Your task to perform on an android device: turn vacation reply on in the gmail app Image 0: 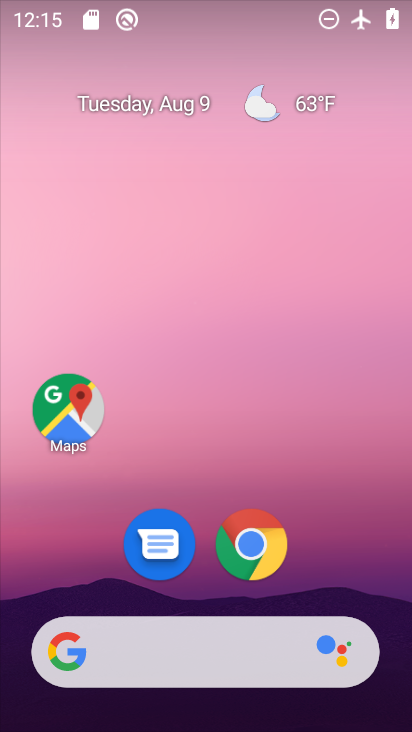
Step 0: drag from (215, 661) to (228, 94)
Your task to perform on an android device: turn vacation reply on in the gmail app Image 1: 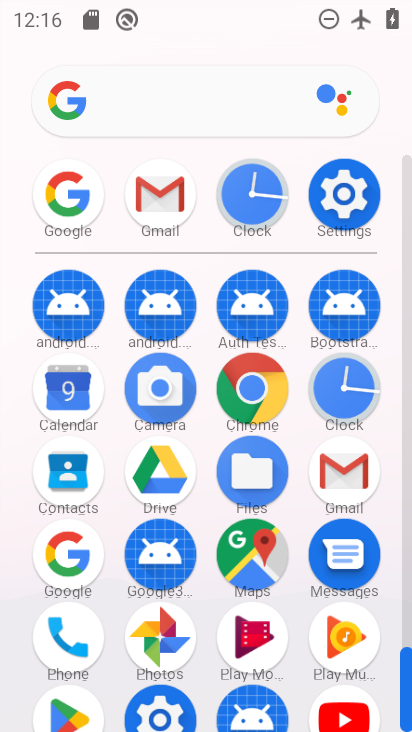
Step 1: click (159, 190)
Your task to perform on an android device: turn vacation reply on in the gmail app Image 2: 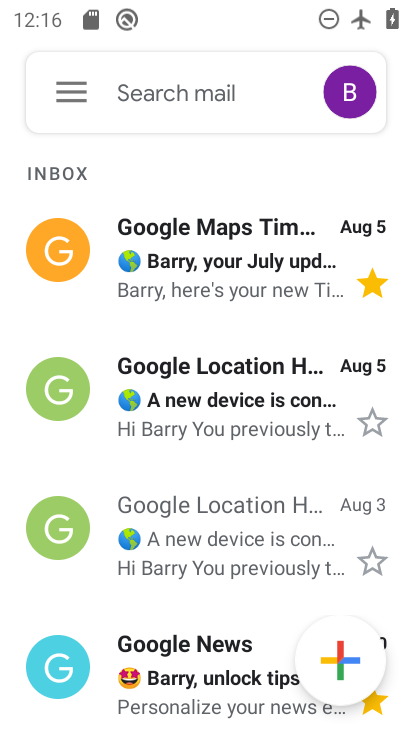
Step 2: click (74, 89)
Your task to perform on an android device: turn vacation reply on in the gmail app Image 3: 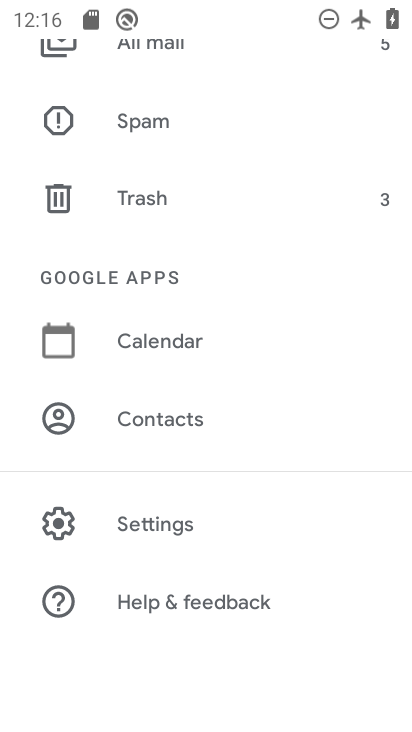
Step 3: click (172, 529)
Your task to perform on an android device: turn vacation reply on in the gmail app Image 4: 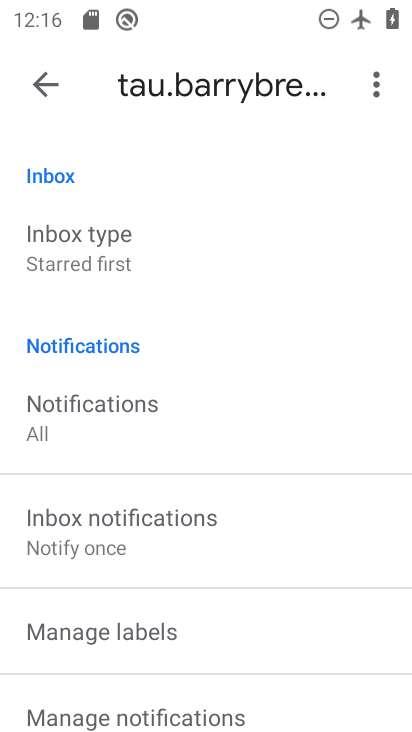
Step 4: drag from (176, 607) to (236, 347)
Your task to perform on an android device: turn vacation reply on in the gmail app Image 5: 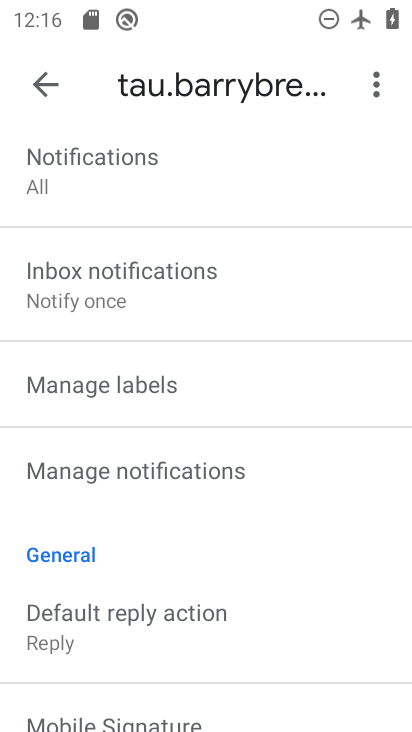
Step 5: drag from (140, 574) to (255, 417)
Your task to perform on an android device: turn vacation reply on in the gmail app Image 6: 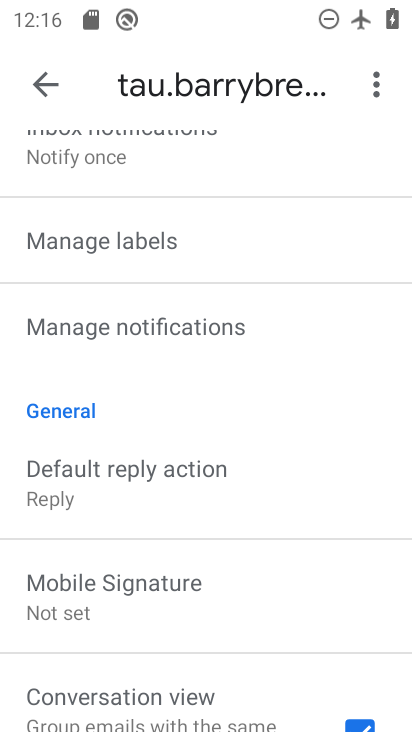
Step 6: drag from (104, 634) to (266, 411)
Your task to perform on an android device: turn vacation reply on in the gmail app Image 7: 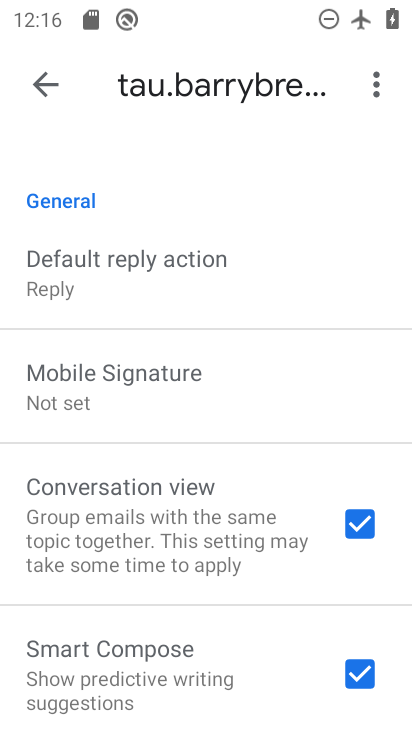
Step 7: drag from (178, 631) to (332, 417)
Your task to perform on an android device: turn vacation reply on in the gmail app Image 8: 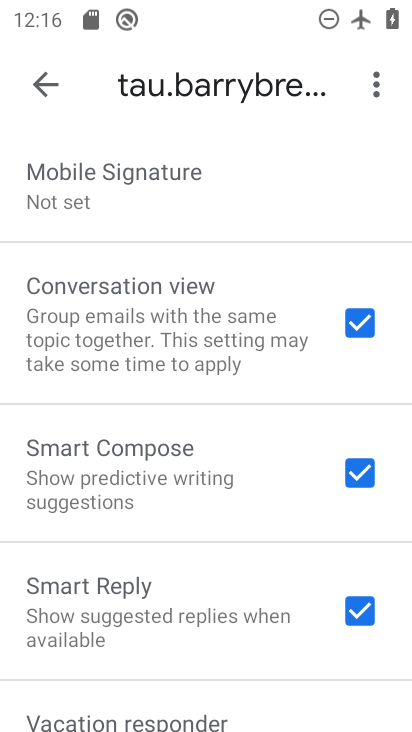
Step 8: drag from (129, 673) to (229, 497)
Your task to perform on an android device: turn vacation reply on in the gmail app Image 9: 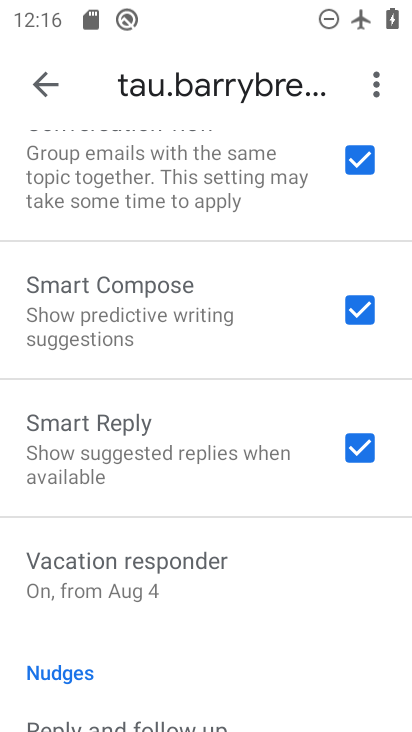
Step 9: click (178, 574)
Your task to perform on an android device: turn vacation reply on in the gmail app Image 10: 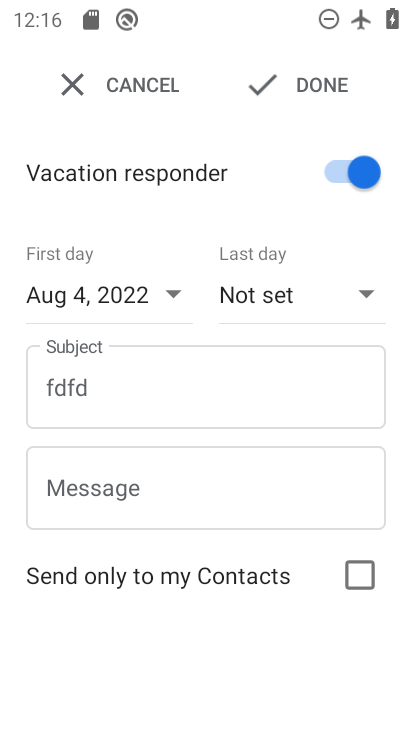
Step 10: task complete